Your task to perform on an android device: Open the calendar and show me this week's events? Image 0: 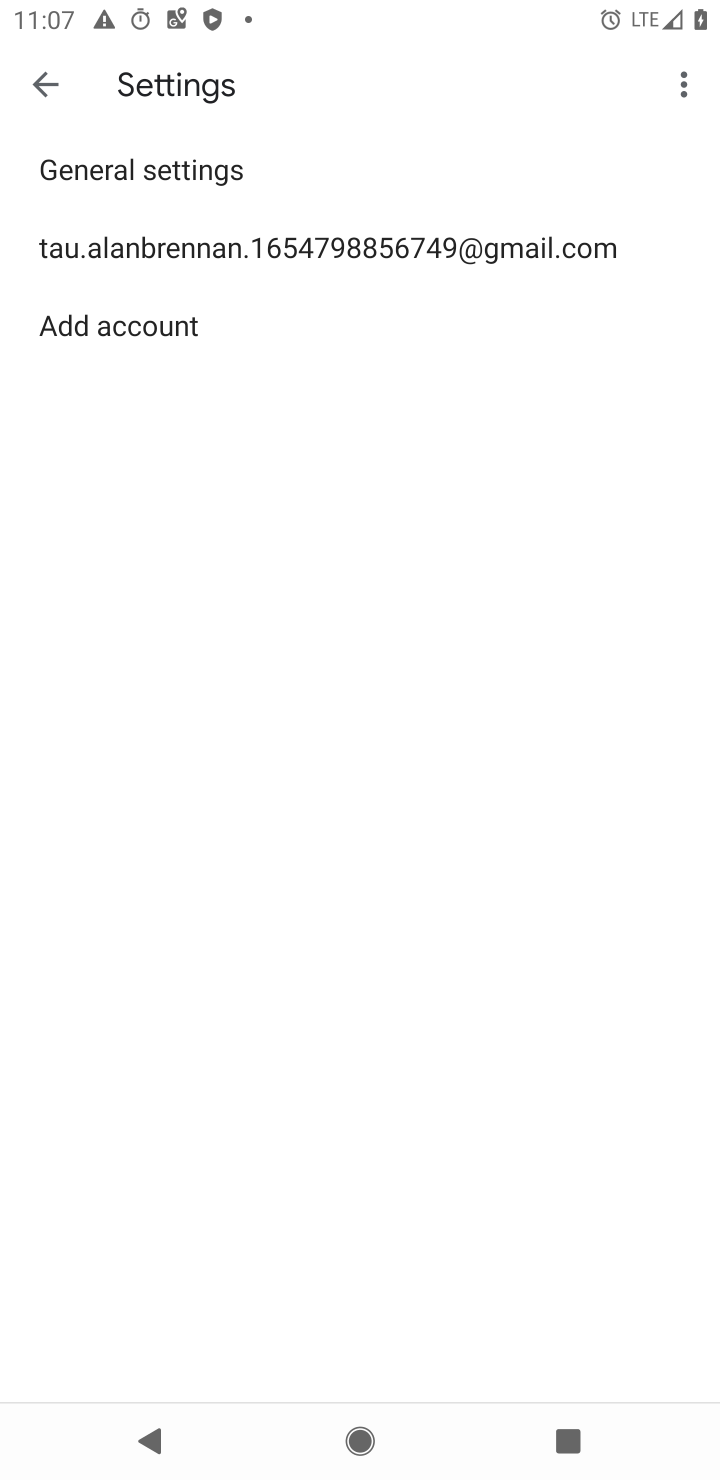
Step 0: press home button
Your task to perform on an android device: Open the calendar and show me this week's events? Image 1: 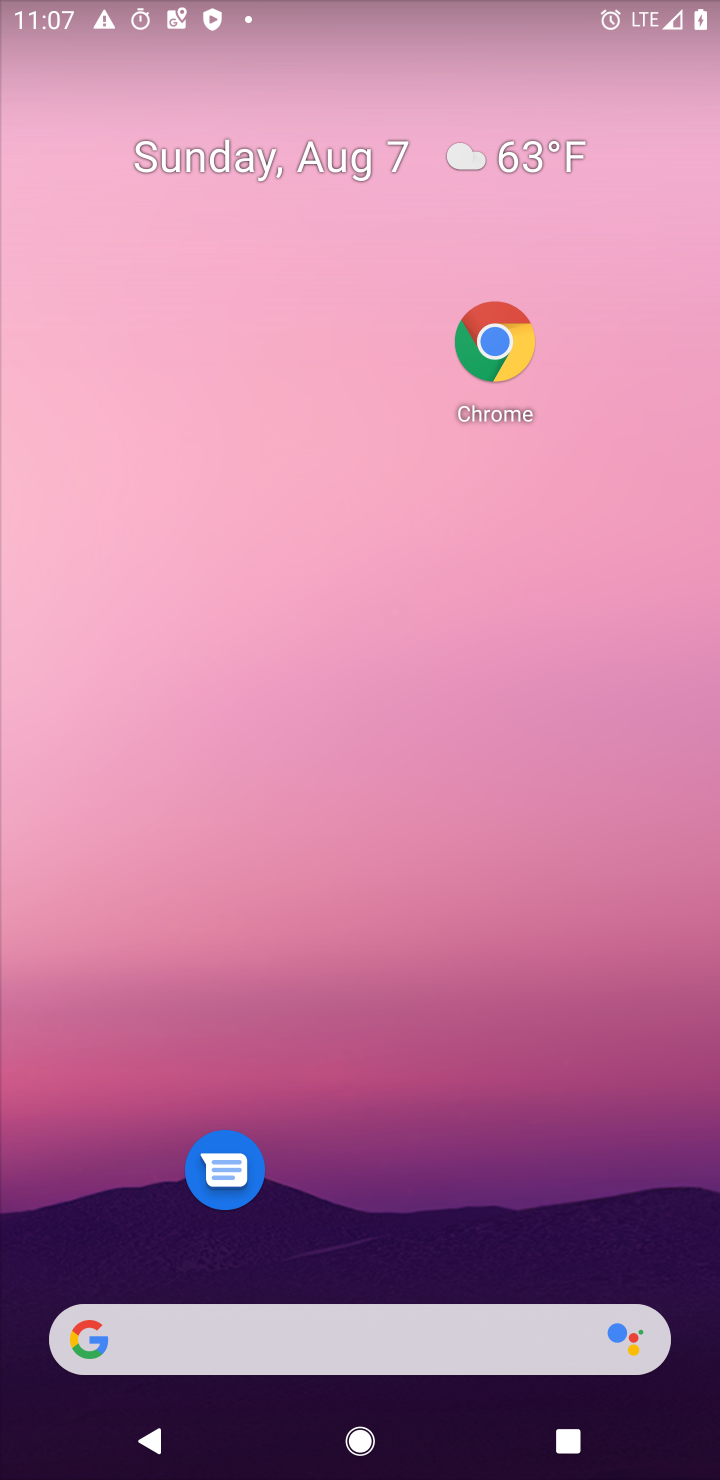
Step 1: click (181, 228)
Your task to perform on an android device: Open the calendar and show me this week's events? Image 2: 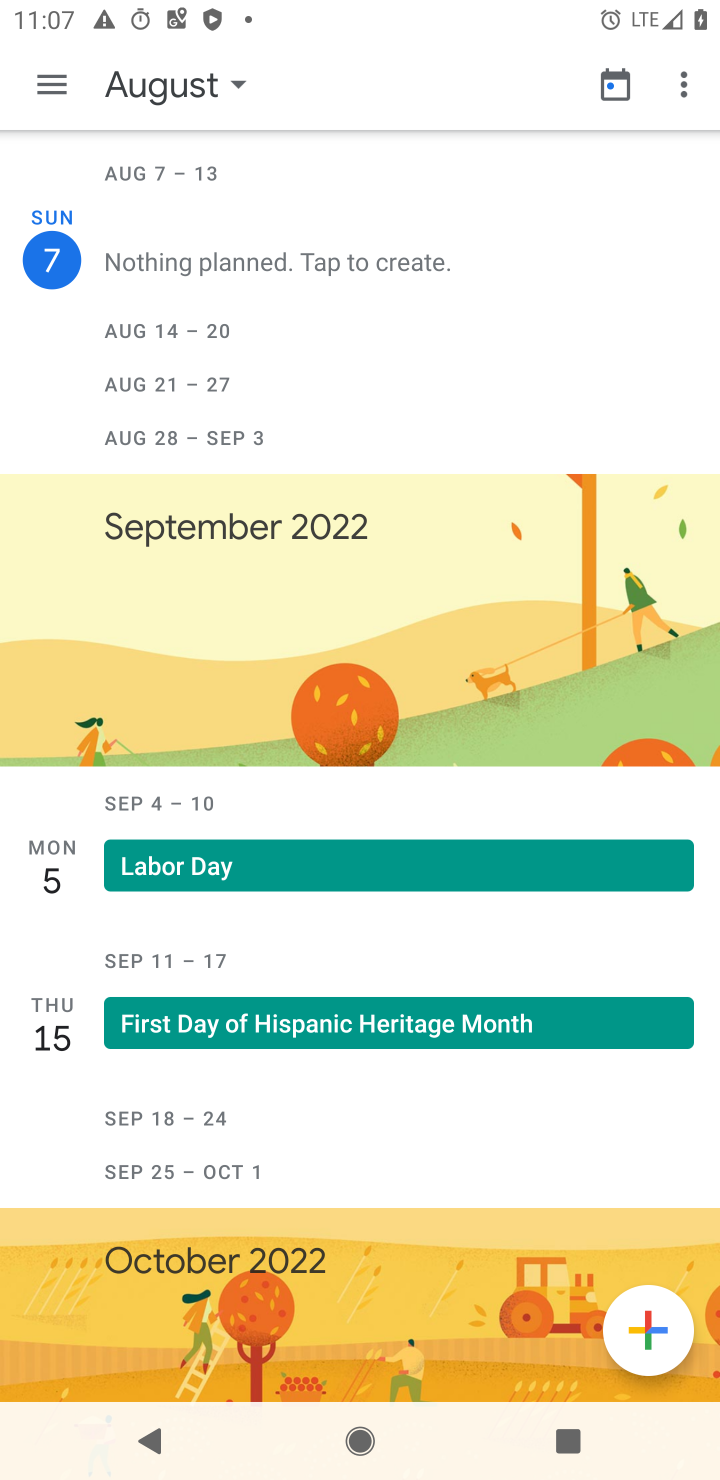
Step 2: click (399, 1334)
Your task to perform on an android device: Open the calendar and show me this week's events? Image 3: 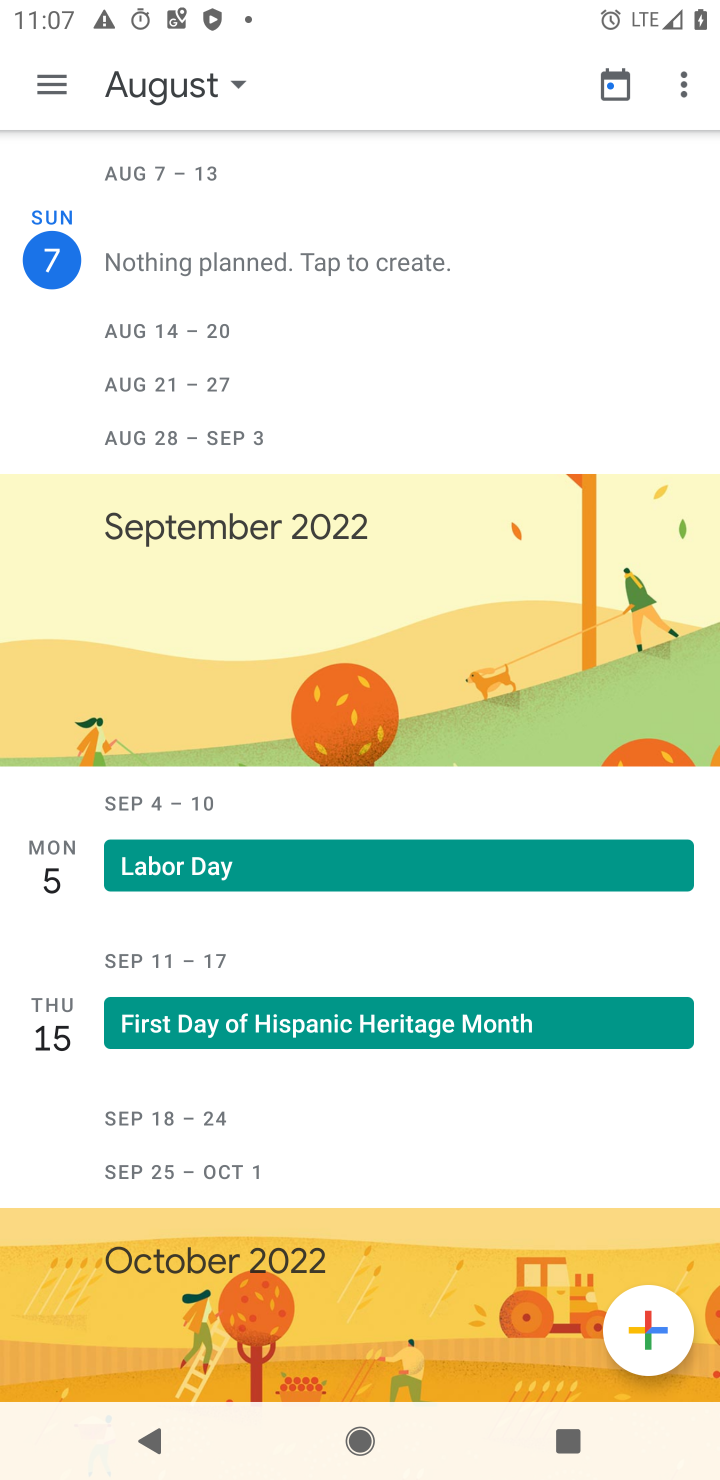
Step 3: press home button
Your task to perform on an android device: Open the calendar and show me this week's events? Image 4: 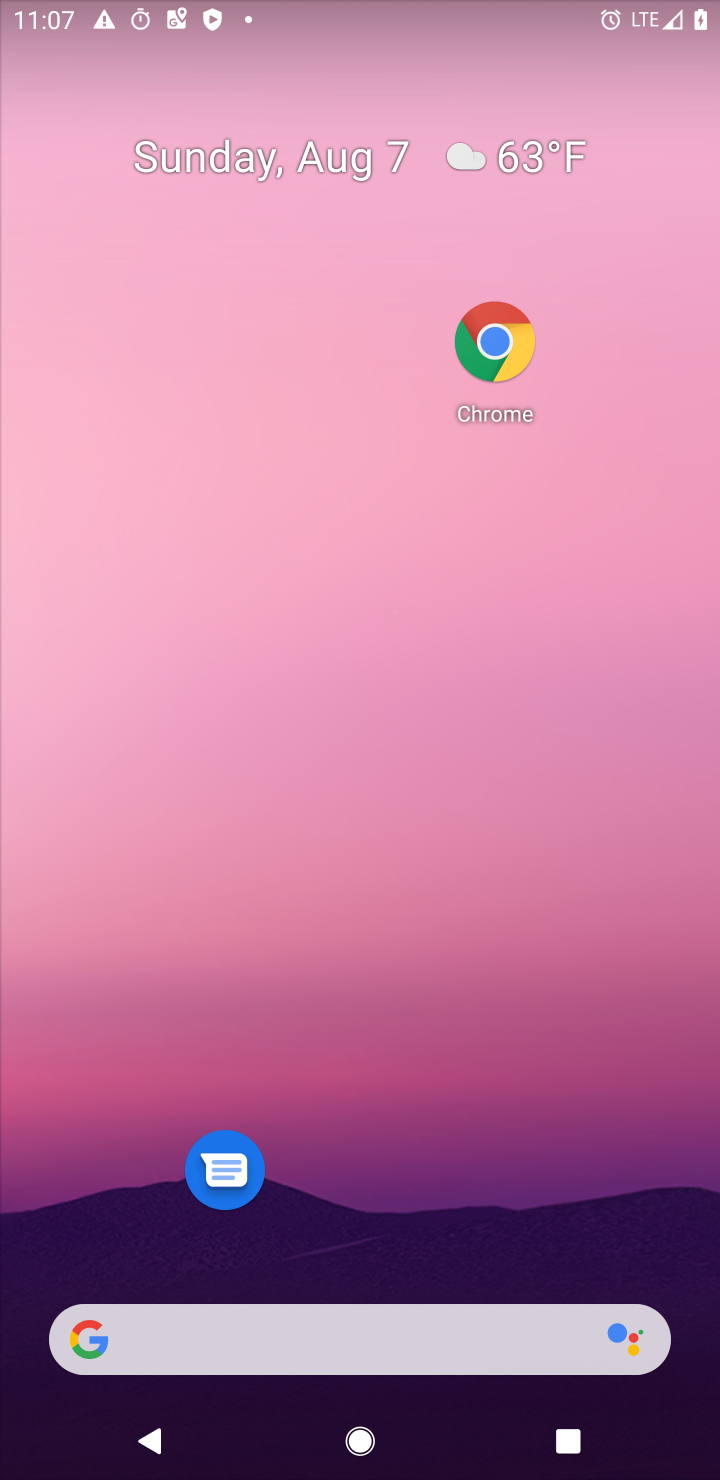
Step 4: drag from (404, 1349) to (294, 239)
Your task to perform on an android device: Open the calendar and show me this week's events? Image 5: 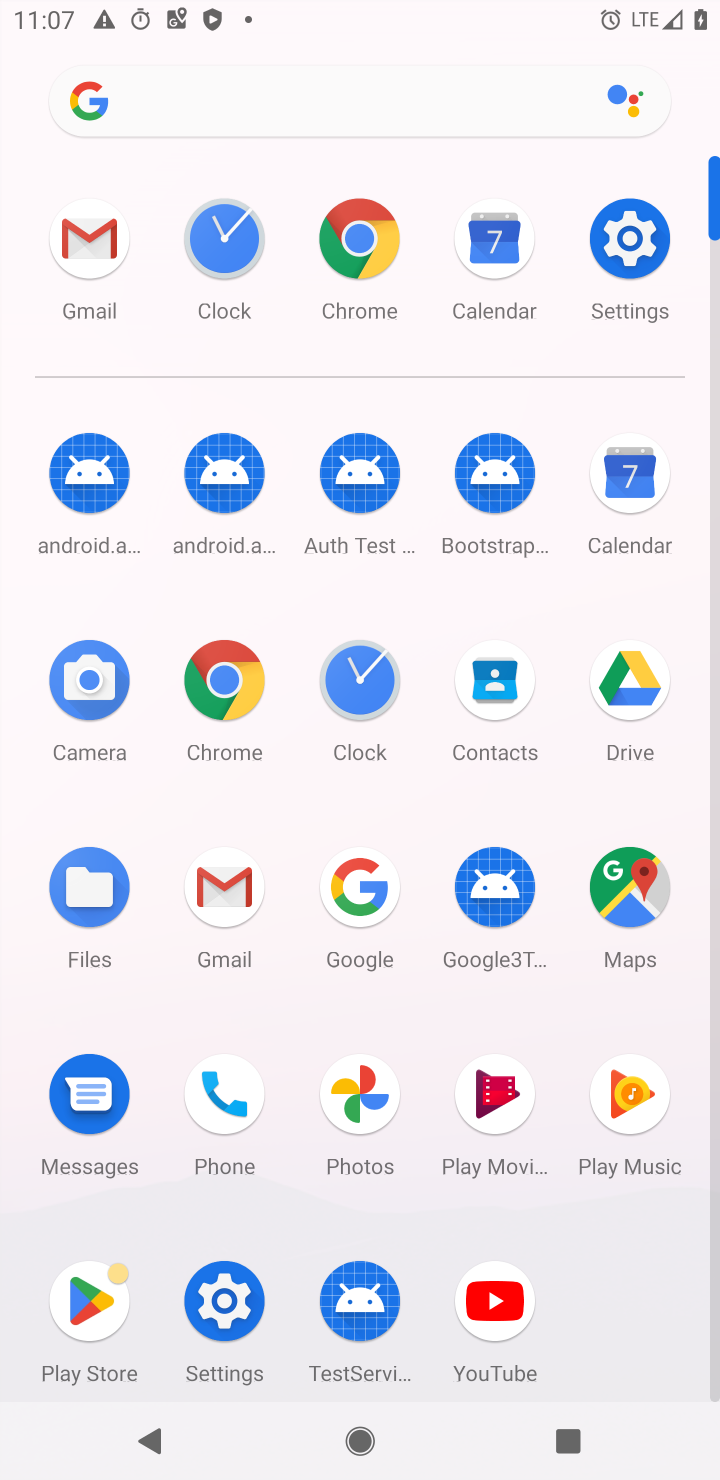
Step 5: click (643, 502)
Your task to perform on an android device: Open the calendar and show me this week's events? Image 6: 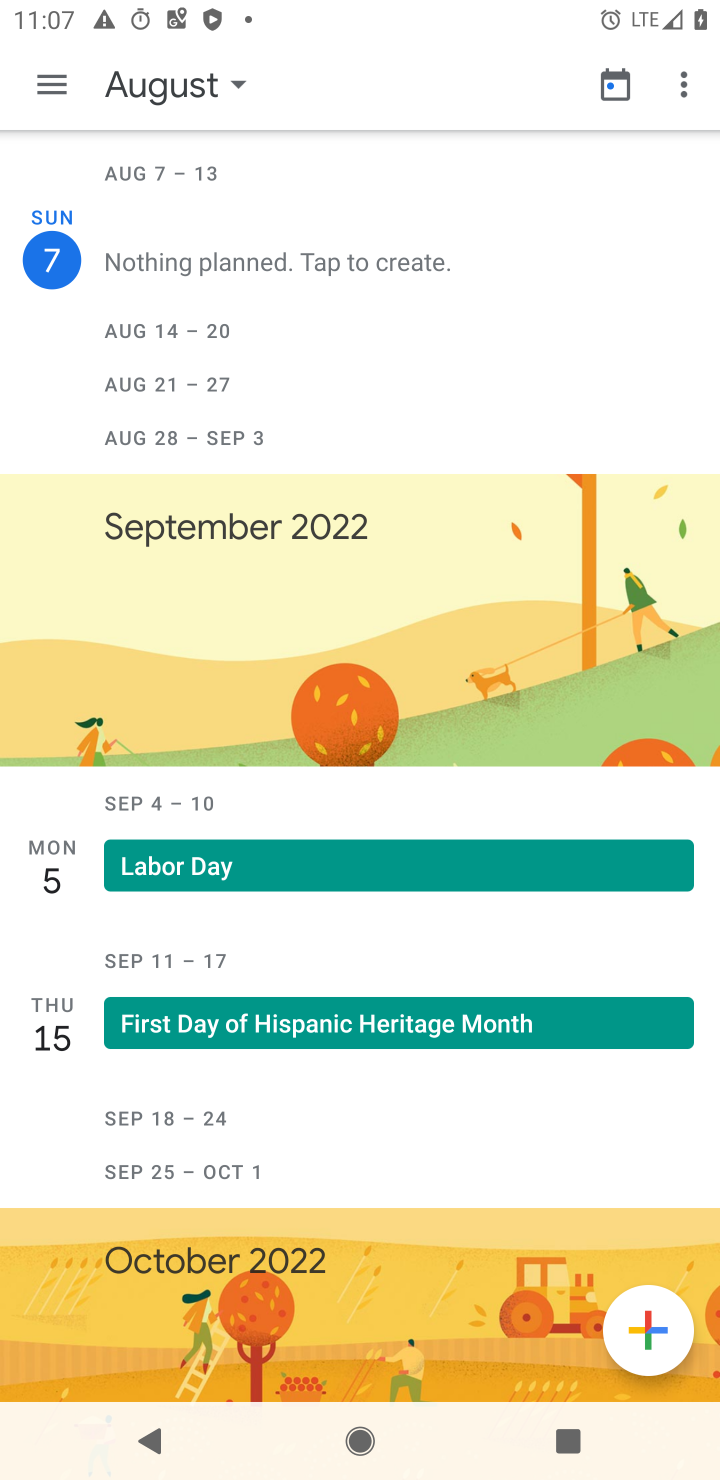
Step 6: click (230, 72)
Your task to perform on an android device: Open the calendar and show me this week's events? Image 7: 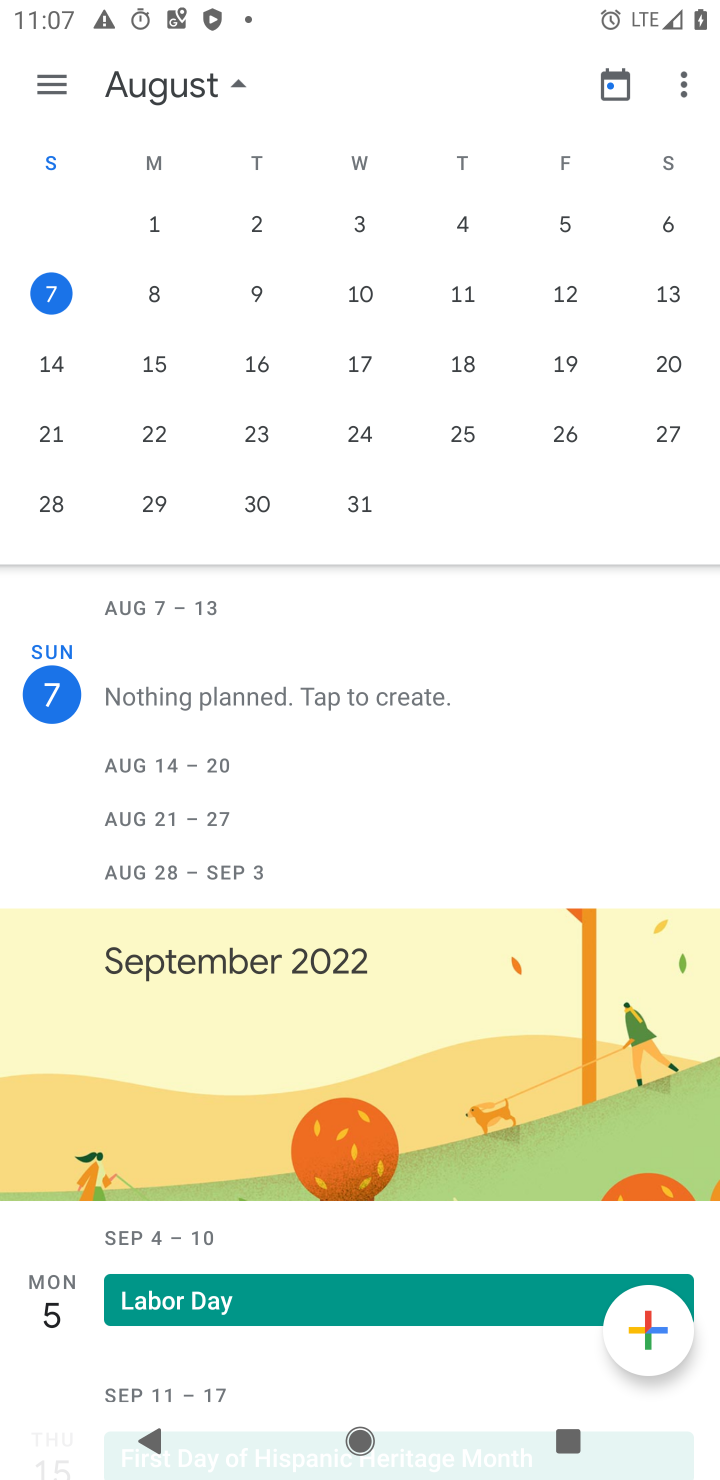
Step 7: click (466, 292)
Your task to perform on an android device: Open the calendar and show me this week's events? Image 8: 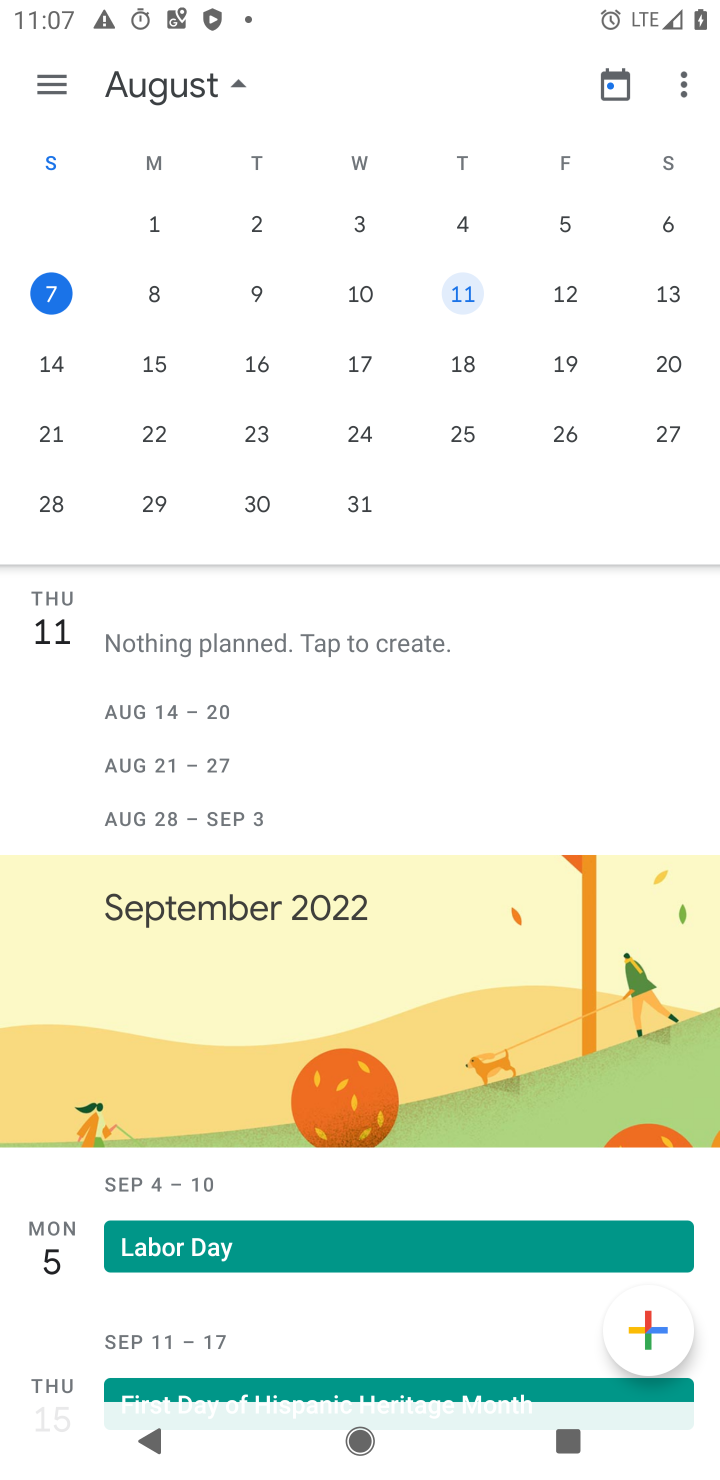
Step 8: click (54, 81)
Your task to perform on an android device: Open the calendar and show me this week's events? Image 9: 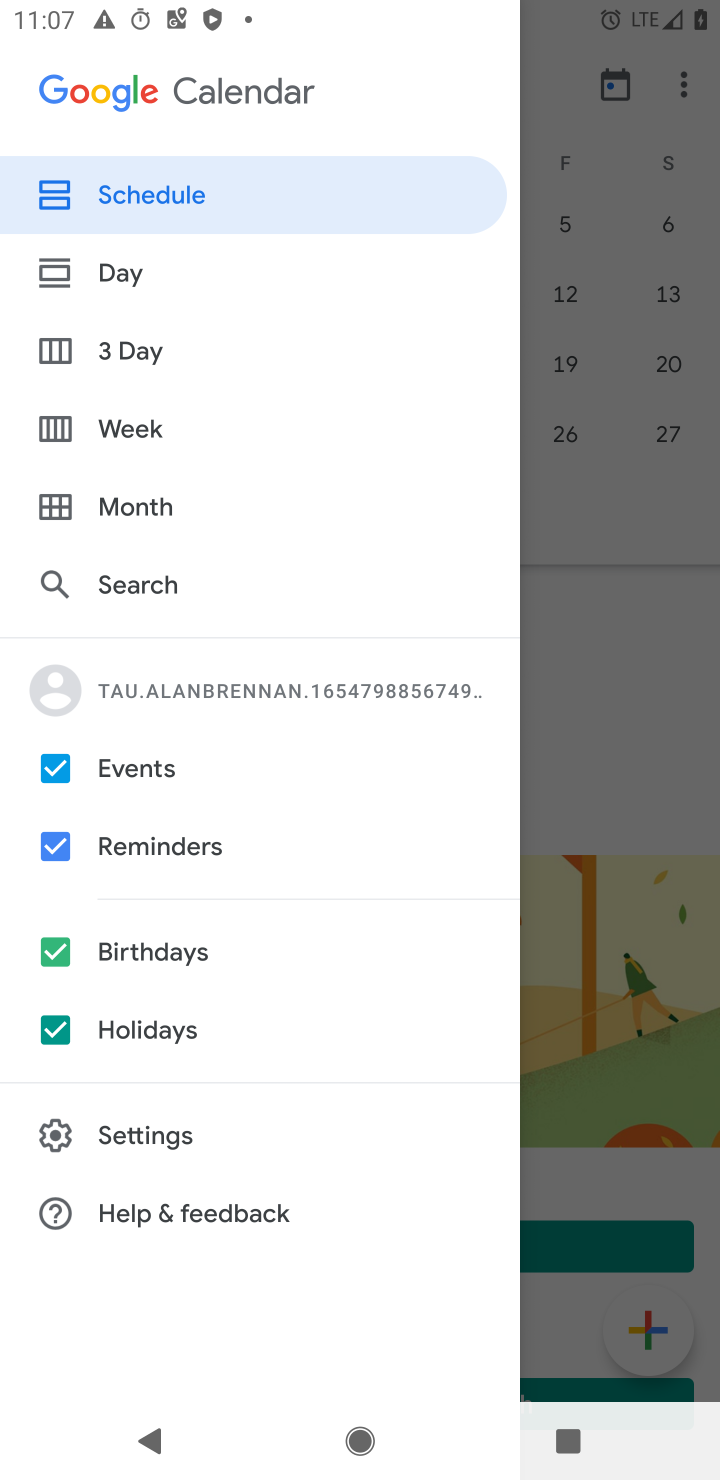
Step 9: click (165, 415)
Your task to perform on an android device: Open the calendar and show me this week's events? Image 10: 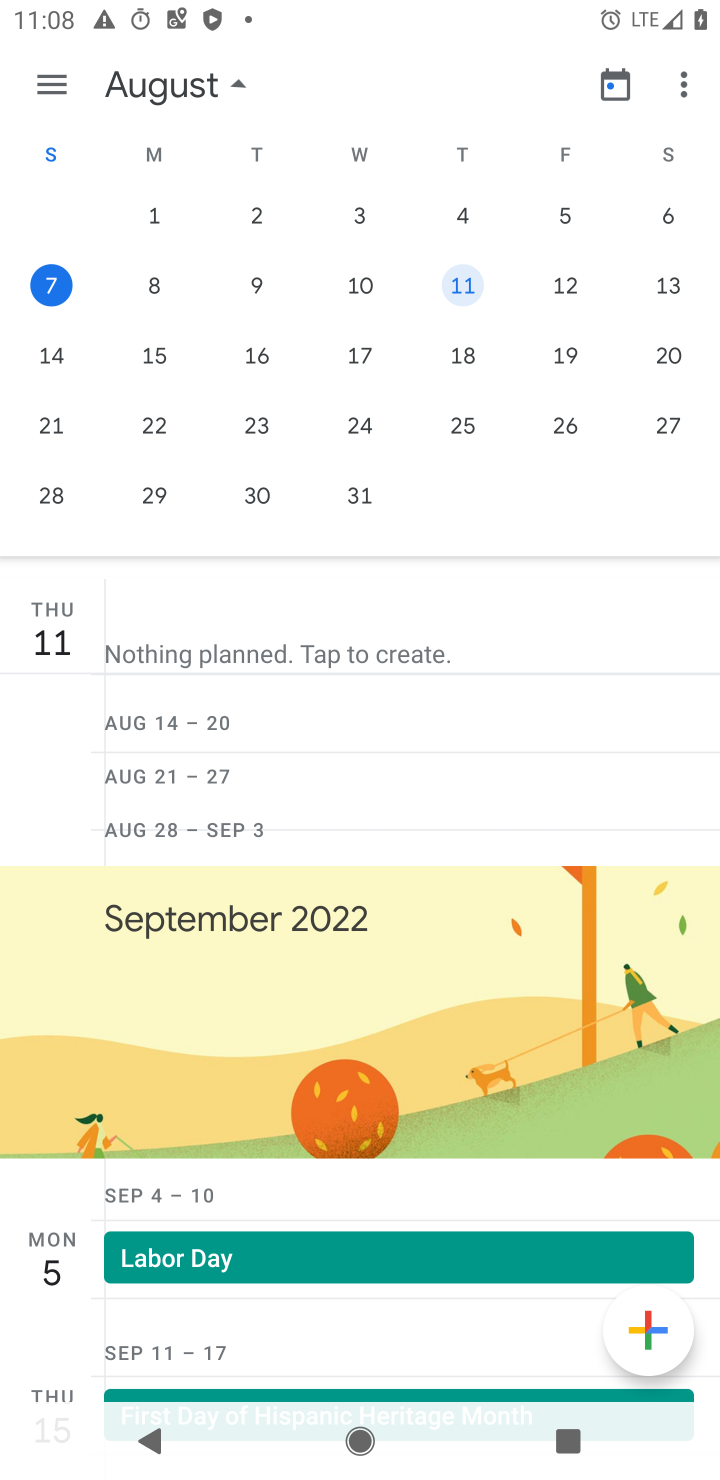
Step 10: task complete